Your task to perform on an android device: Go to CNN.com Image 0: 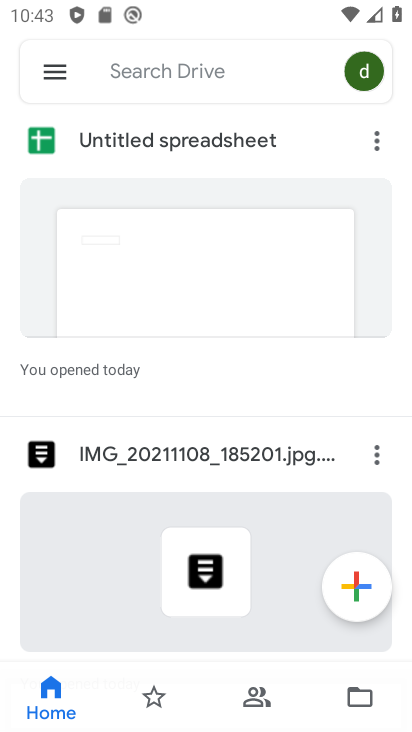
Step 0: press back button
Your task to perform on an android device: Go to CNN.com Image 1: 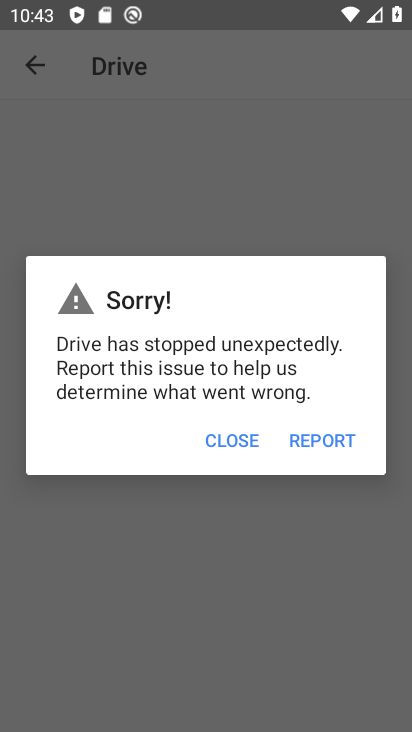
Step 1: press back button
Your task to perform on an android device: Go to CNN.com Image 2: 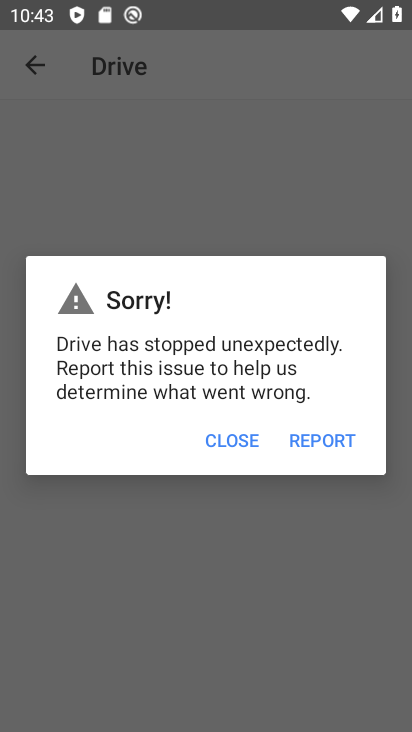
Step 2: press home button
Your task to perform on an android device: Go to CNN.com Image 3: 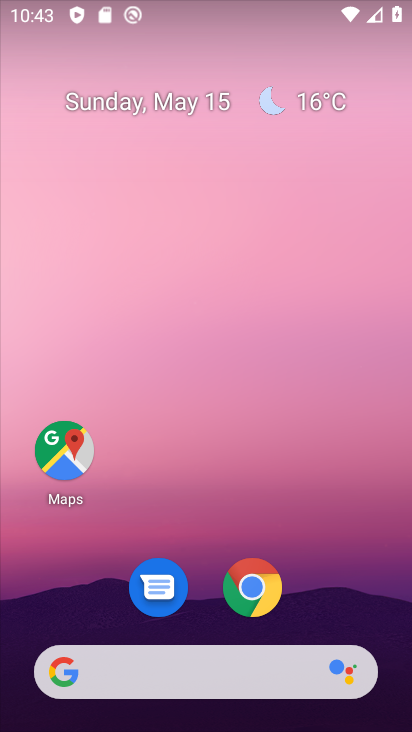
Step 3: drag from (329, 563) to (281, 81)
Your task to perform on an android device: Go to CNN.com Image 4: 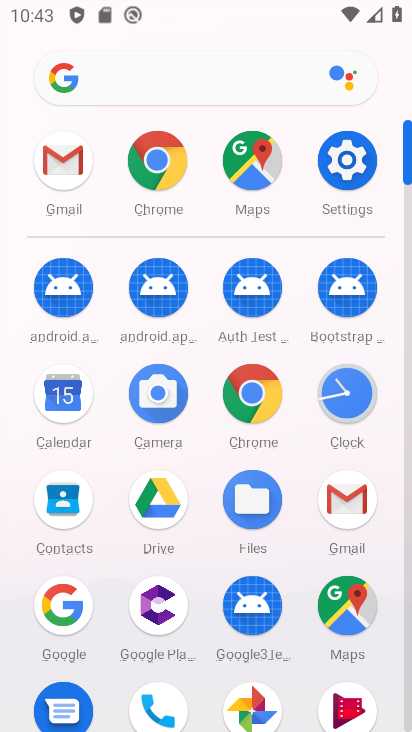
Step 4: click (158, 155)
Your task to perform on an android device: Go to CNN.com Image 5: 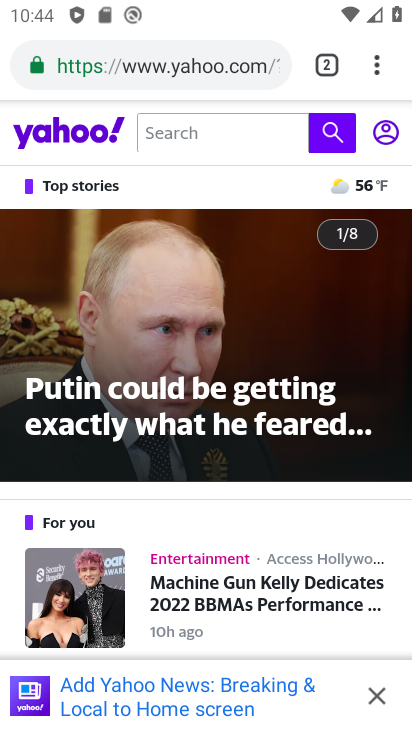
Step 5: click (177, 65)
Your task to perform on an android device: Go to CNN.com Image 6: 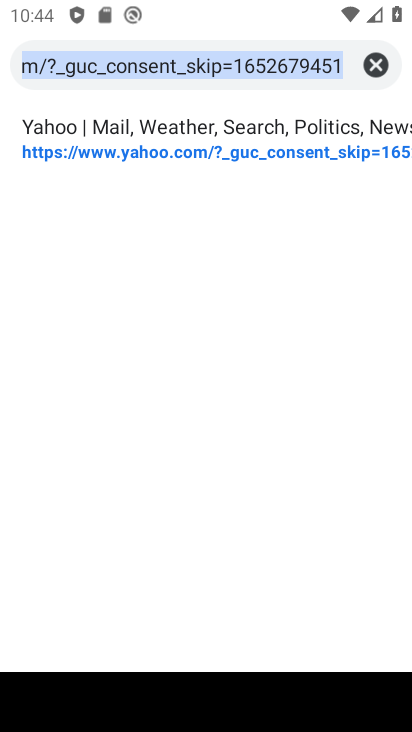
Step 6: click (372, 65)
Your task to perform on an android device: Go to CNN.com Image 7: 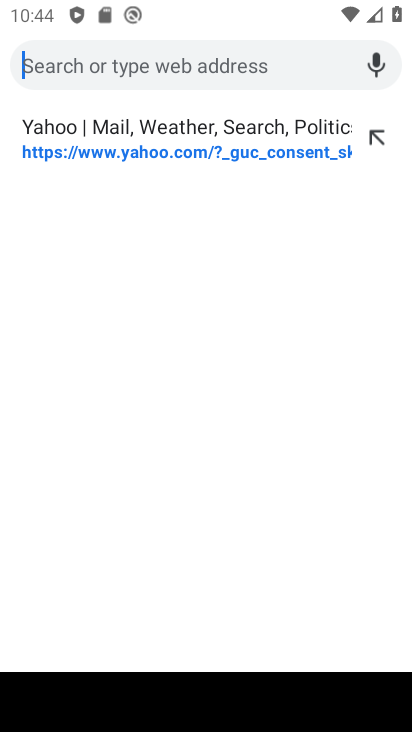
Step 7: type "CNN.com"
Your task to perform on an android device: Go to CNN.com Image 8: 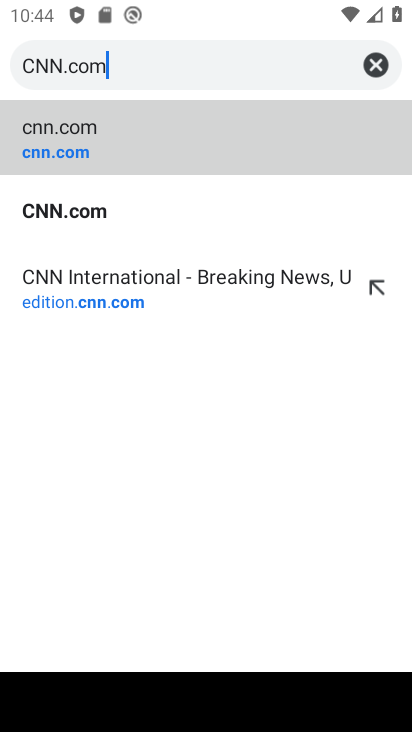
Step 8: type ""
Your task to perform on an android device: Go to CNN.com Image 9: 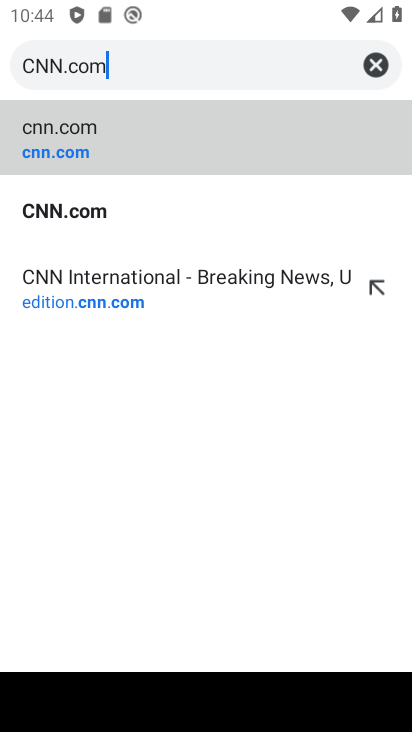
Step 9: click (191, 129)
Your task to perform on an android device: Go to CNN.com Image 10: 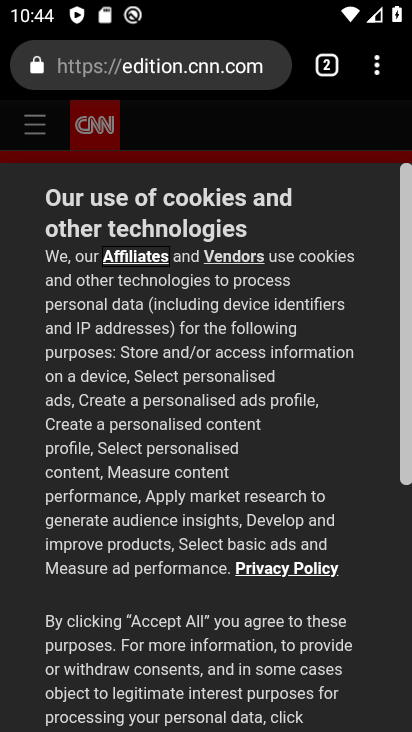
Step 10: drag from (349, 614) to (339, 219)
Your task to perform on an android device: Go to CNN.com Image 11: 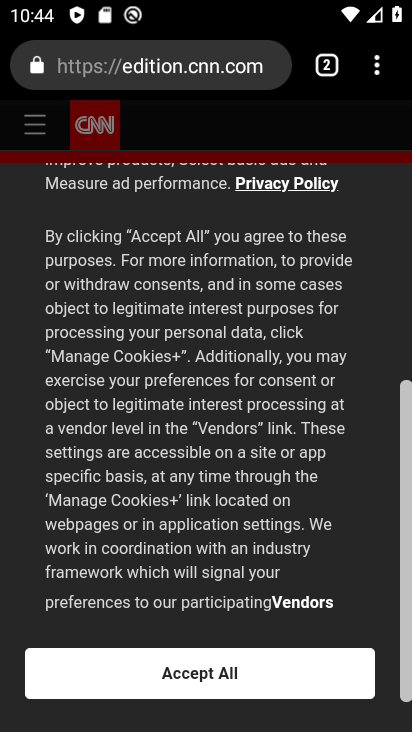
Step 11: click (268, 663)
Your task to perform on an android device: Go to CNN.com Image 12: 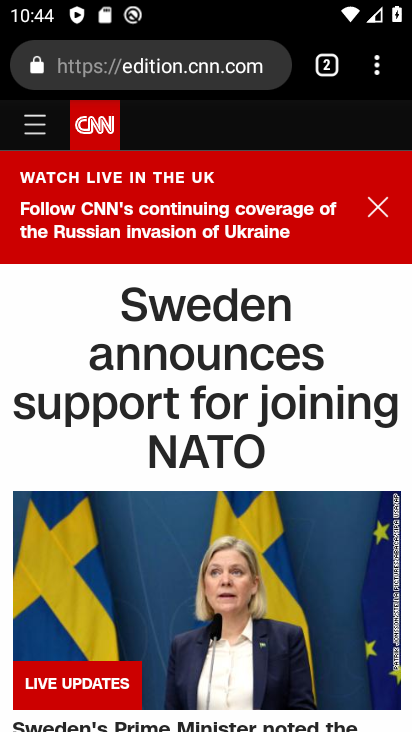
Step 12: task complete